Your task to perform on an android device: open the mobile data screen to see how much data has been used Image 0: 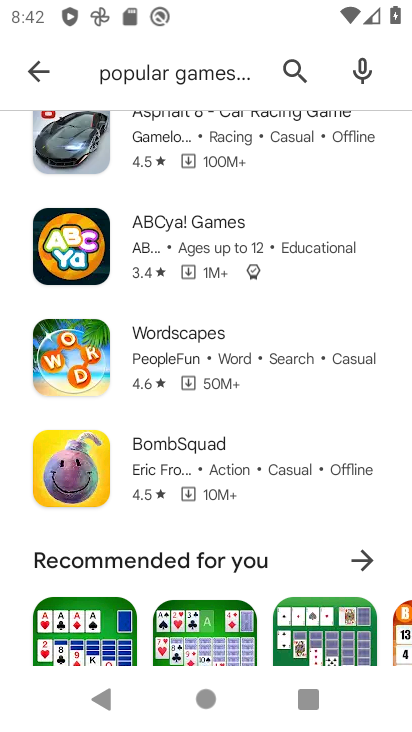
Step 0: press home button
Your task to perform on an android device: open the mobile data screen to see how much data has been used Image 1: 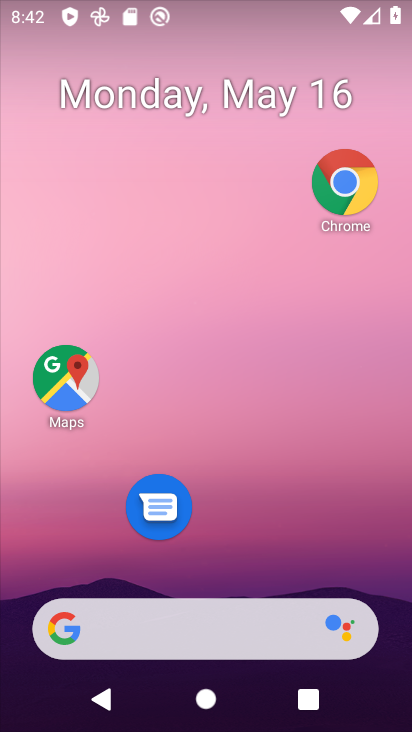
Step 1: drag from (286, 5) to (278, 518)
Your task to perform on an android device: open the mobile data screen to see how much data has been used Image 2: 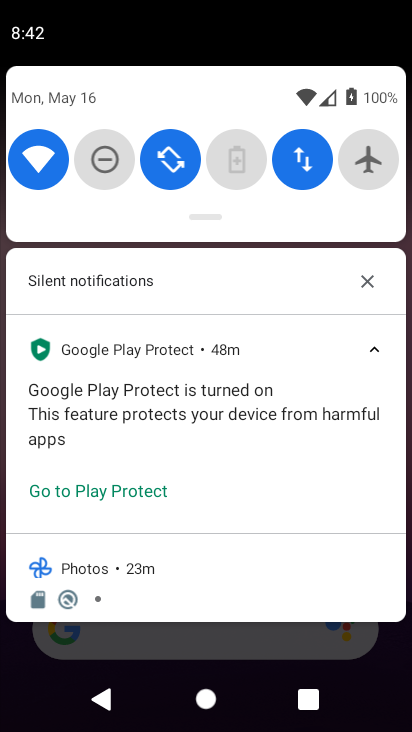
Step 2: click (295, 173)
Your task to perform on an android device: open the mobile data screen to see how much data has been used Image 3: 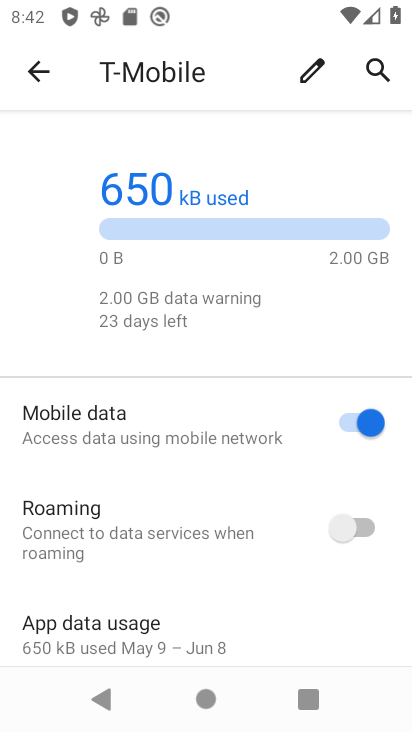
Step 3: task complete